Your task to perform on an android device: see sites visited before in the chrome app Image 0: 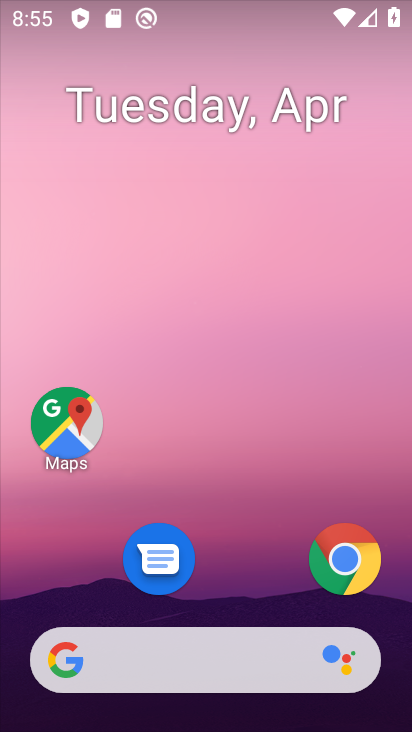
Step 0: click (346, 312)
Your task to perform on an android device: see sites visited before in the chrome app Image 1: 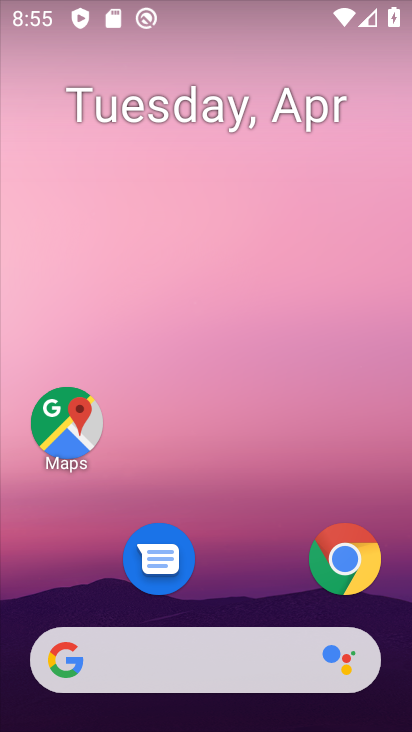
Step 1: drag from (192, 709) to (233, 200)
Your task to perform on an android device: see sites visited before in the chrome app Image 2: 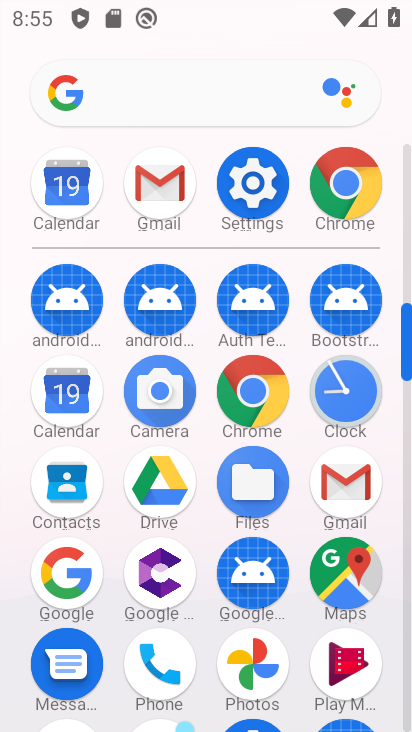
Step 2: click (356, 194)
Your task to perform on an android device: see sites visited before in the chrome app Image 3: 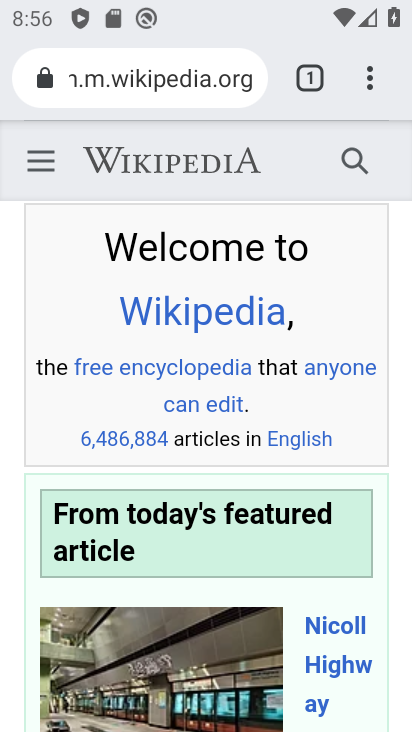
Step 3: click (368, 83)
Your task to perform on an android device: see sites visited before in the chrome app Image 4: 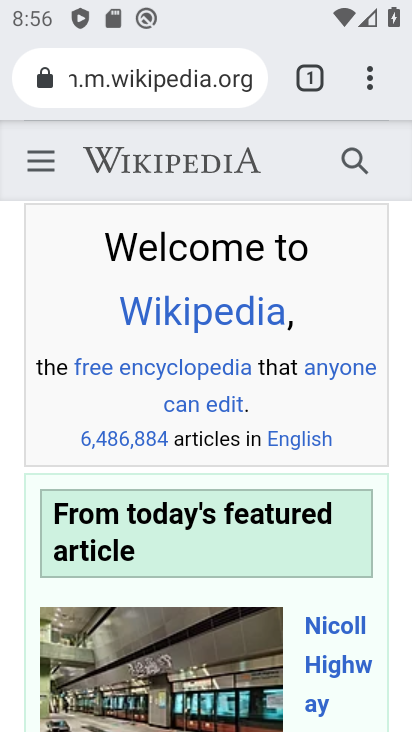
Step 4: click (370, 71)
Your task to perform on an android device: see sites visited before in the chrome app Image 5: 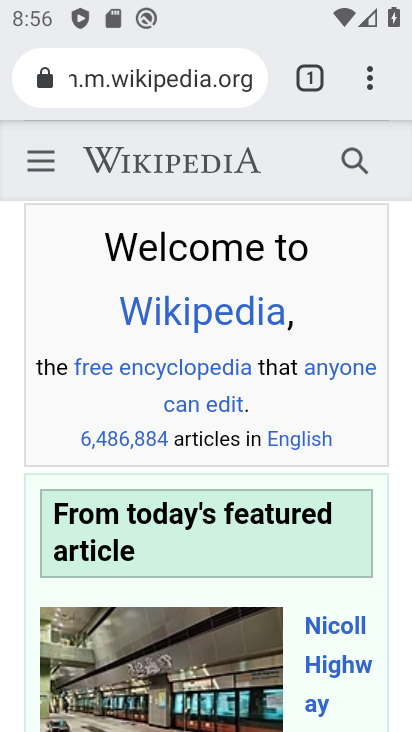
Step 5: click (363, 73)
Your task to perform on an android device: see sites visited before in the chrome app Image 6: 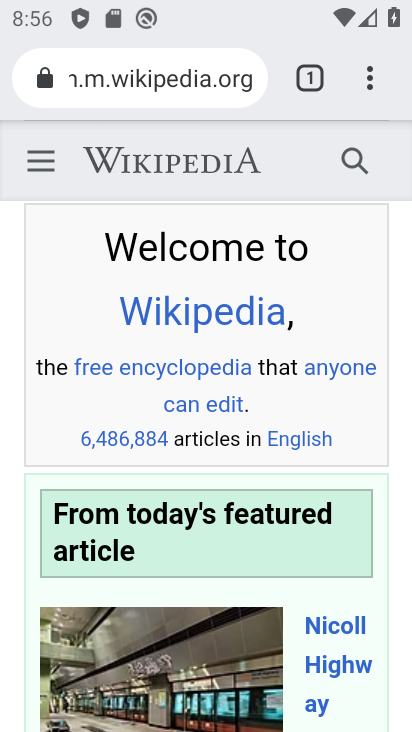
Step 6: click (363, 73)
Your task to perform on an android device: see sites visited before in the chrome app Image 7: 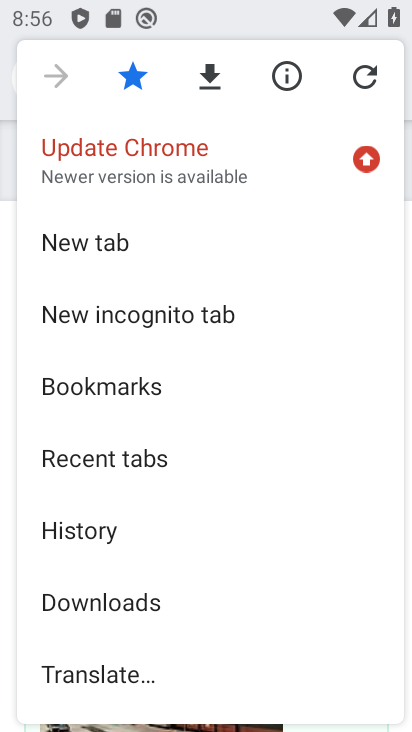
Step 7: drag from (135, 605) to (169, 335)
Your task to perform on an android device: see sites visited before in the chrome app Image 8: 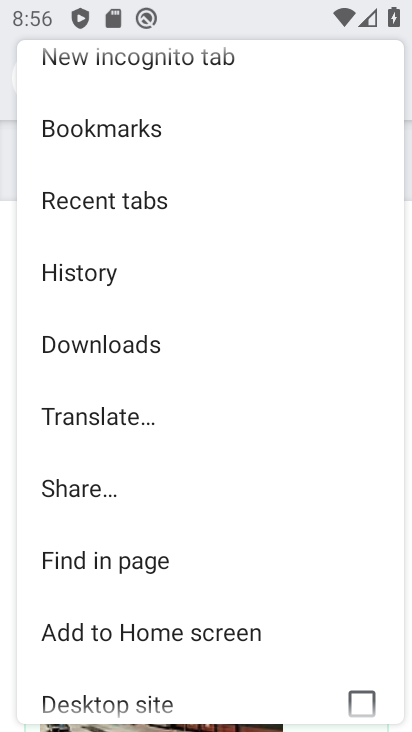
Step 8: drag from (119, 641) to (130, 470)
Your task to perform on an android device: see sites visited before in the chrome app Image 9: 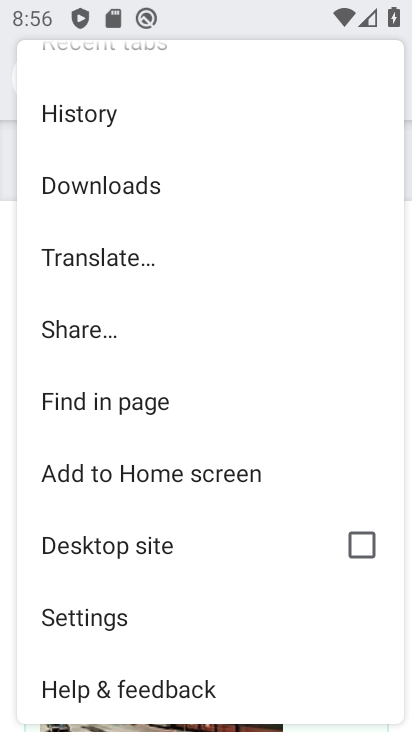
Step 9: click (80, 611)
Your task to perform on an android device: see sites visited before in the chrome app Image 10: 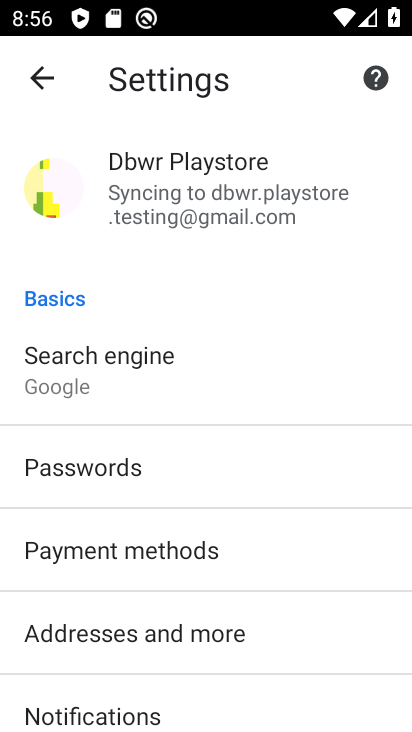
Step 10: drag from (246, 657) to (282, 270)
Your task to perform on an android device: see sites visited before in the chrome app Image 11: 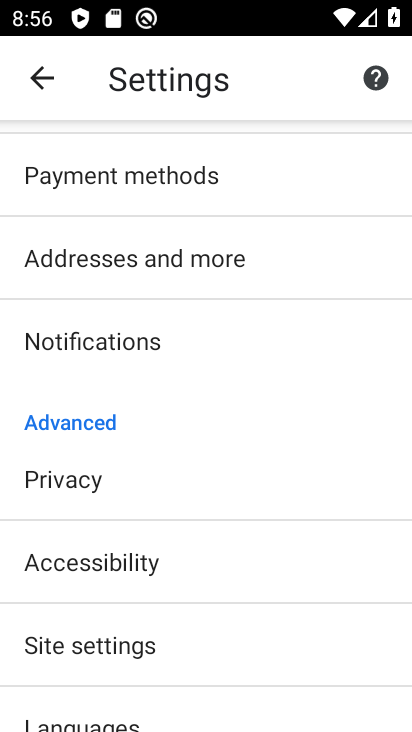
Step 11: click (110, 639)
Your task to perform on an android device: see sites visited before in the chrome app Image 12: 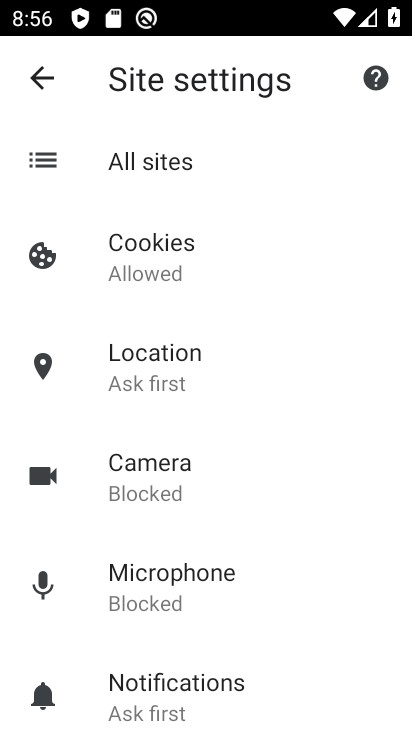
Step 12: click (181, 165)
Your task to perform on an android device: see sites visited before in the chrome app Image 13: 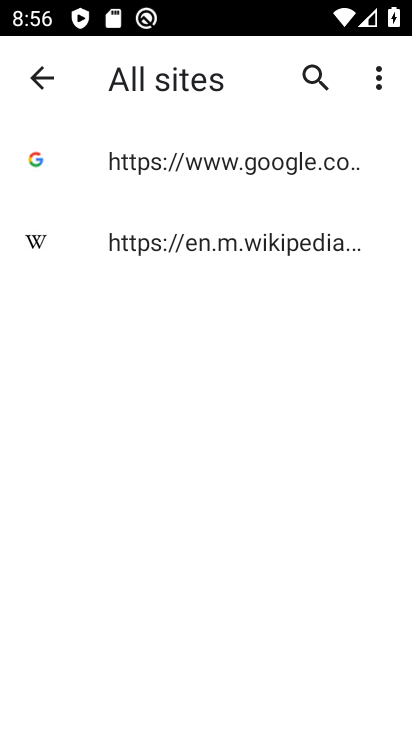
Step 13: task complete